Your task to perform on an android device: check google app version Image 0: 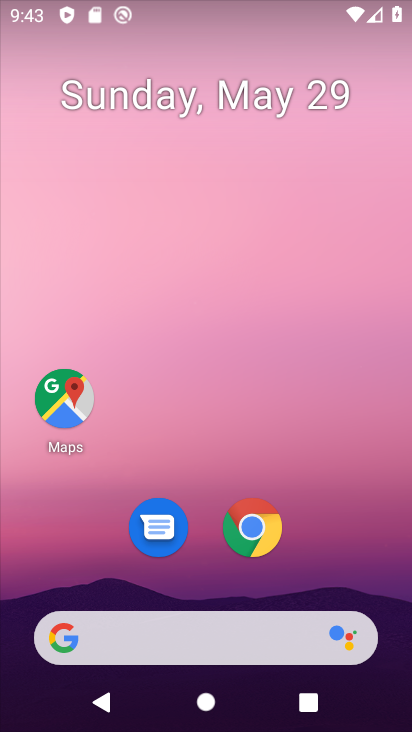
Step 0: drag from (341, 525) to (309, 66)
Your task to perform on an android device: check google app version Image 1: 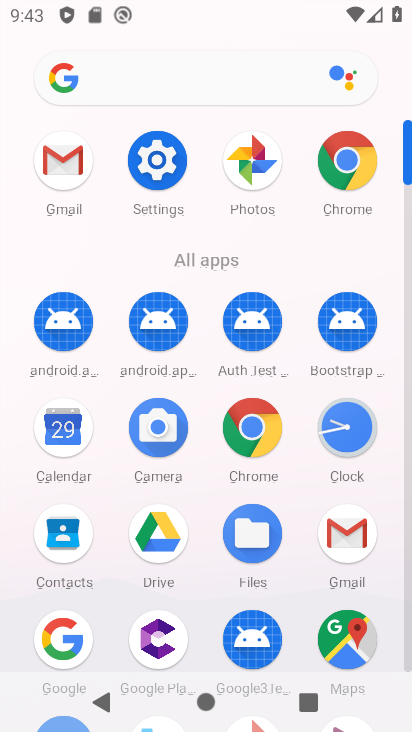
Step 1: drag from (201, 550) to (210, 188)
Your task to perform on an android device: check google app version Image 2: 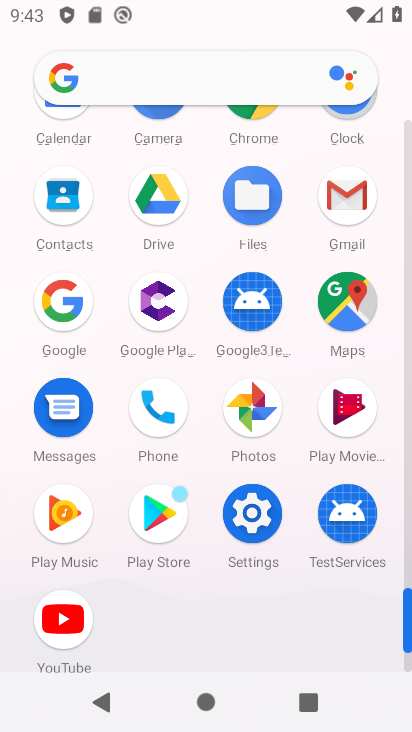
Step 2: click (74, 304)
Your task to perform on an android device: check google app version Image 3: 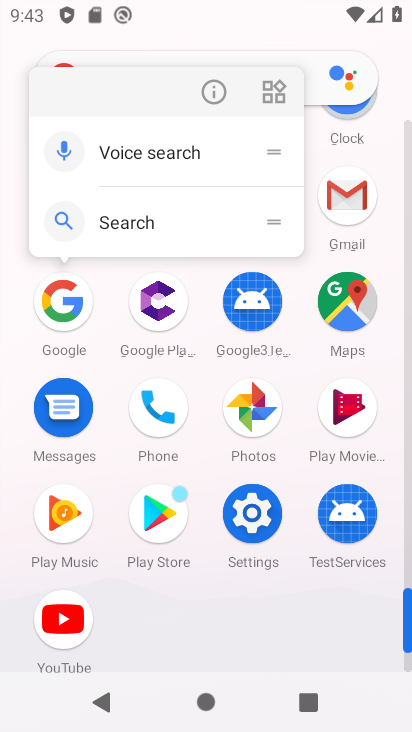
Step 3: click (201, 88)
Your task to perform on an android device: check google app version Image 4: 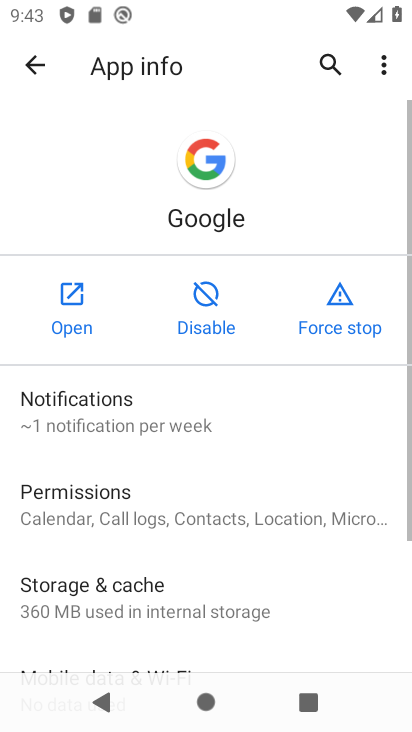
Step 4: drag from (168, 527) to (260, 66)
Your task to perform on an android device: check google app version Image 5: 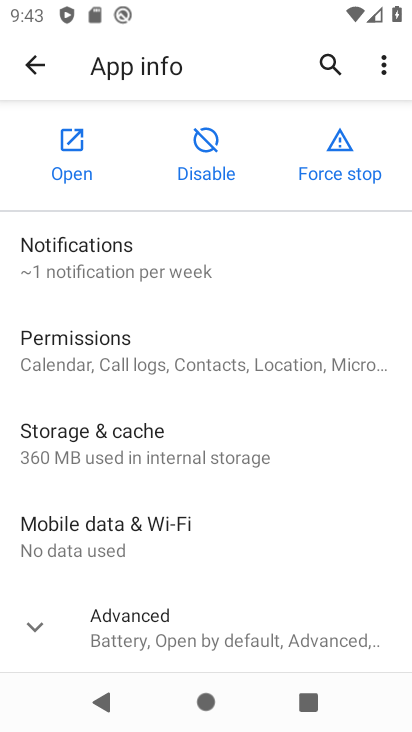
Step 5: click (184, 636)
Your task to perform on an android device: check google app version Image 6: 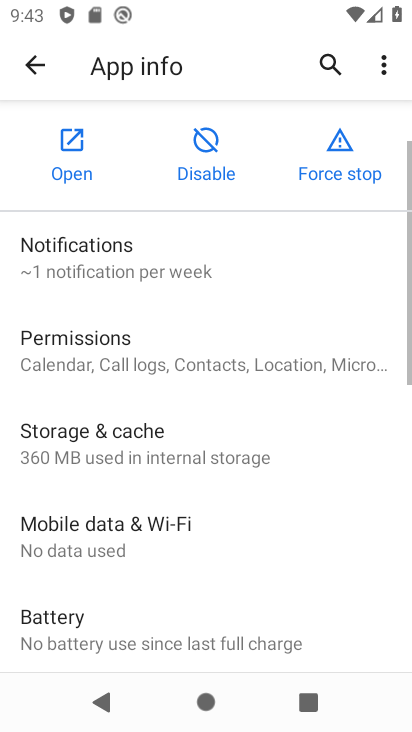
Step 6: drag from (207, 600) to (270, 141)
Your task to perform on an android device: check google app version Image 7: 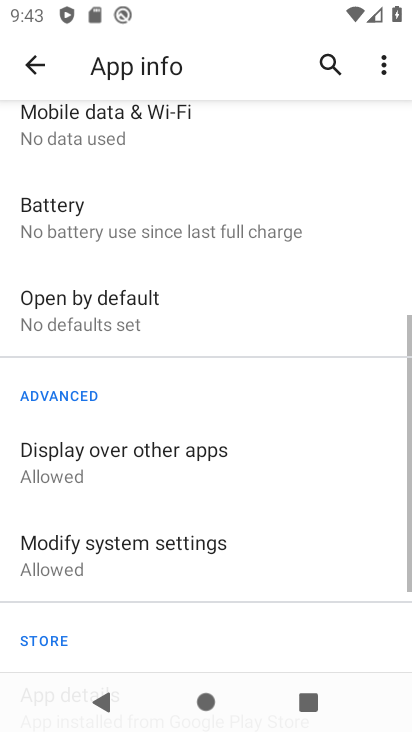
Step 7: click (278, 128)
Your task to perform on an android device: check google app version Image 8: 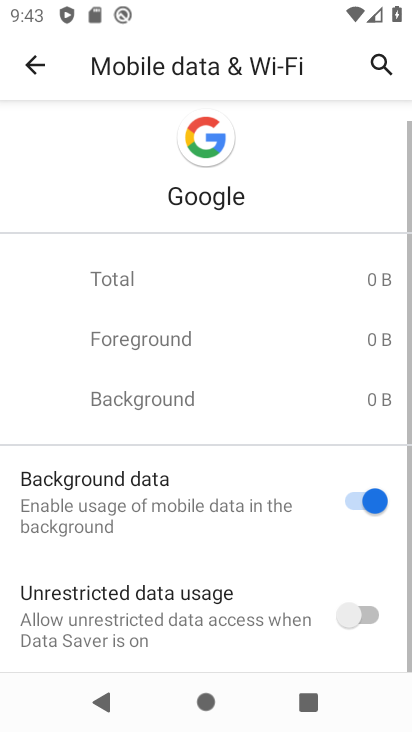
Step 8: click (25, 63)
Your task to perform on an android device: check google app version Image 9: 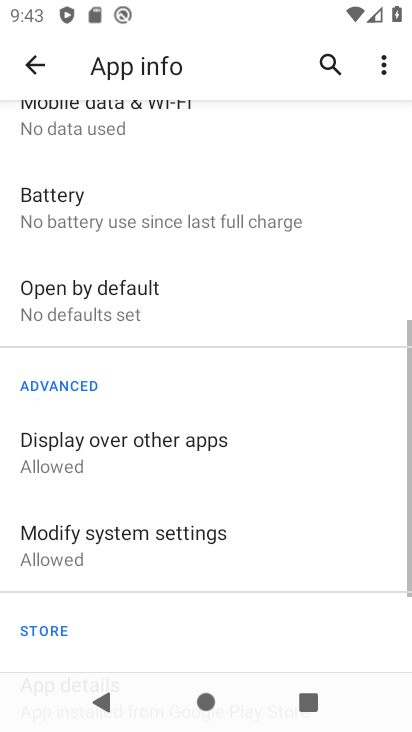
Step 9: task complete